Your task to perform on an android device: Open display settings Image 0: 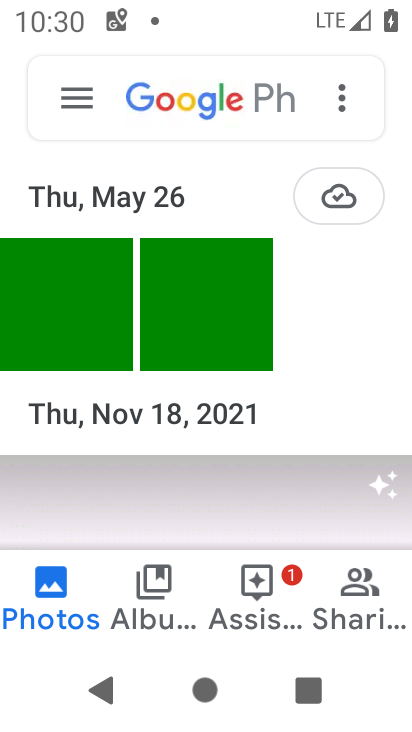
Step 0: press home button
Your task to perform on an android device: Open display settings Image 1: 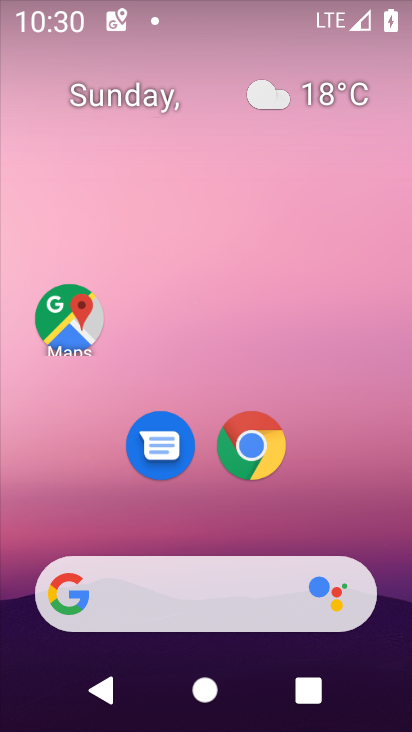
Step 1: drag from (210, 519) to (222, 80)
Your task to perform on an android device: Open display settings Image 2: 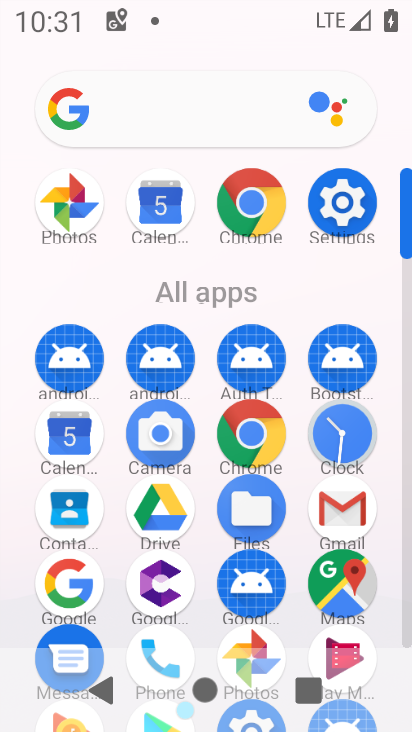
Step 2: click (338, 192)
Your task to perform on an android device: Open display settings Image 3: 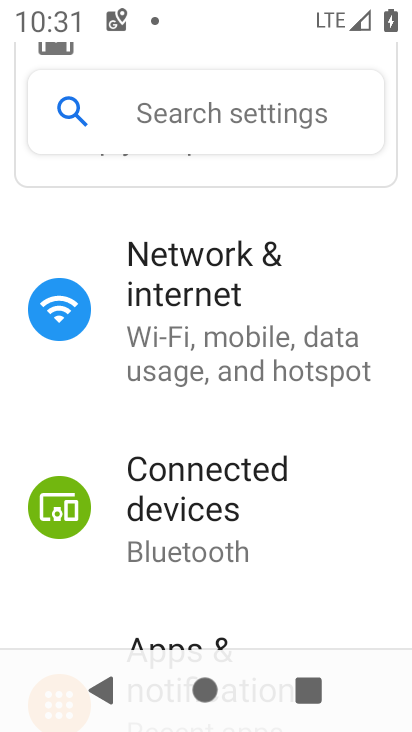
Step 3: drag from (237, 617) to (242, 141)
Your task to perform on an android device: Open display settings Image 4: 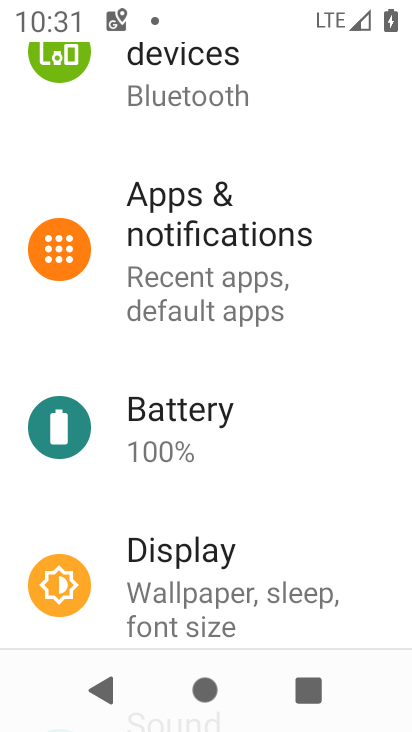
Step 4: click (242, 556)
Your task to perform on an android device: Open display settings Image 5: 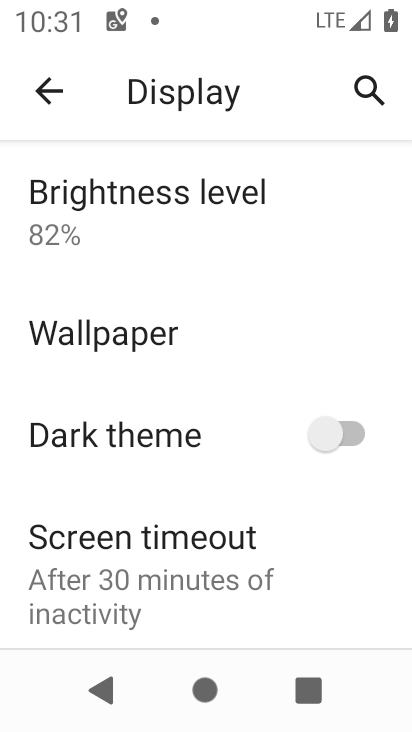
Step 5: drag from (186, 568) to (180, 240)
Your task to perform on an android device: Open display settings Image 6: 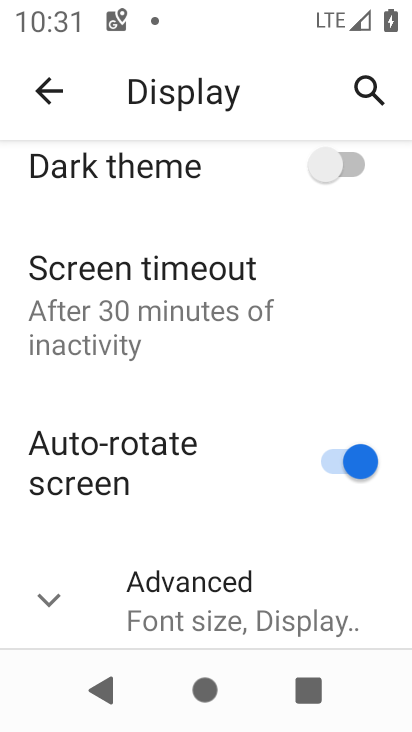
Step 6: click (45, 587)
Your task to perform on an android device: Open display settings Image 7: 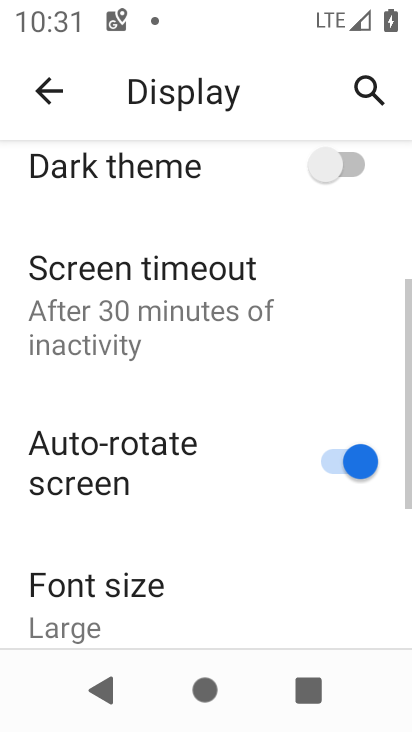
Step 7: task complete